Your task to perform on an android device: open a bookmark in the chrome app Image 0: 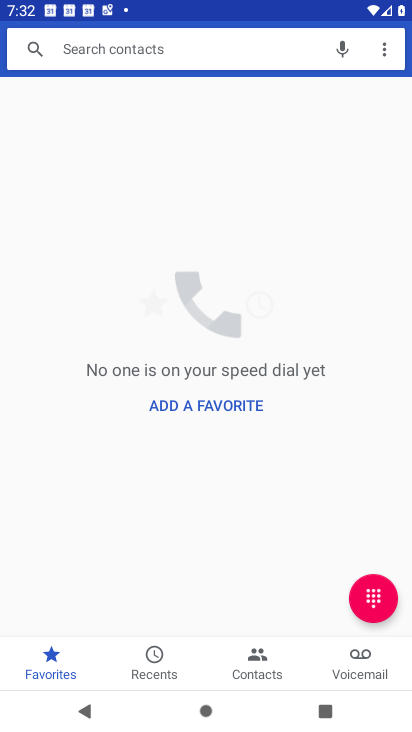
Step 0: press home button
Your task to perform on an android device: open a bookmark in the chrome app Image 1: 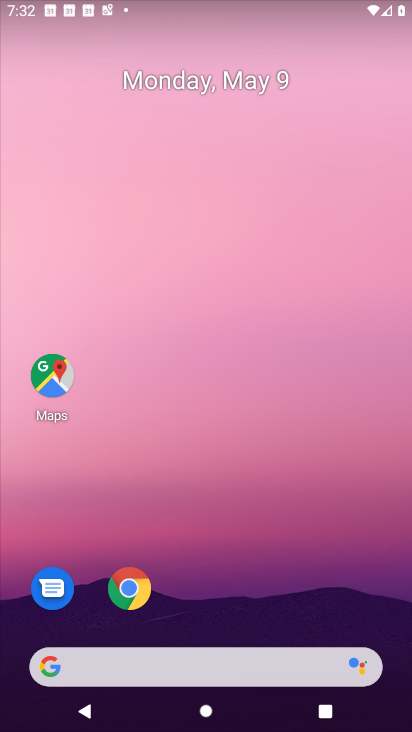
Step 1: click (127, 592)
Your task to perform on an android device: open a bookmark in the chrome app Image 2: 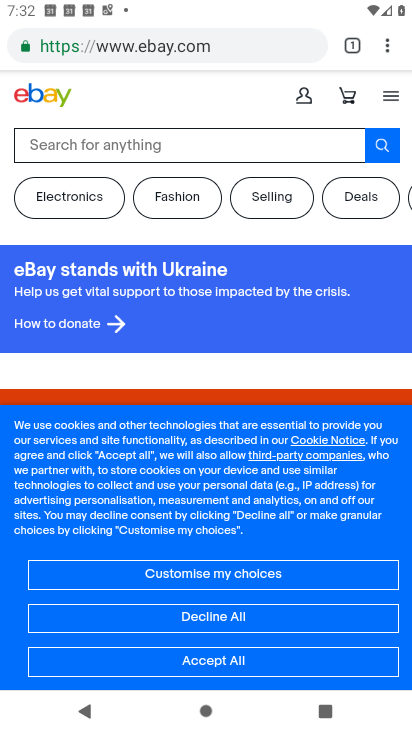
Step 2: task complete